Your task to perform on an android device: Go to notification settings Image 0: 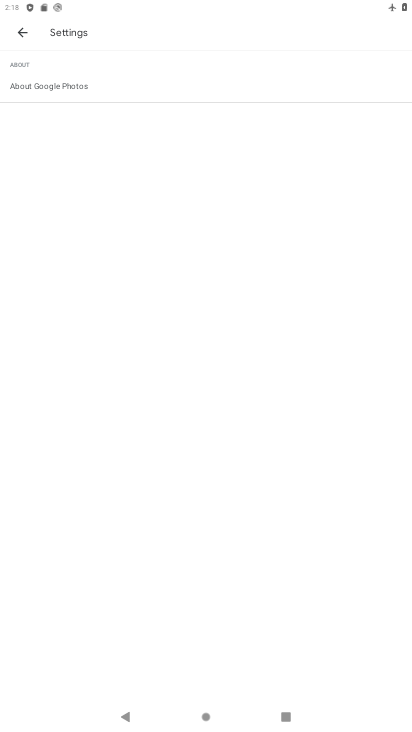
Step 0: press home button
Your task to perform on an android device: Go to notification settings Image 1: 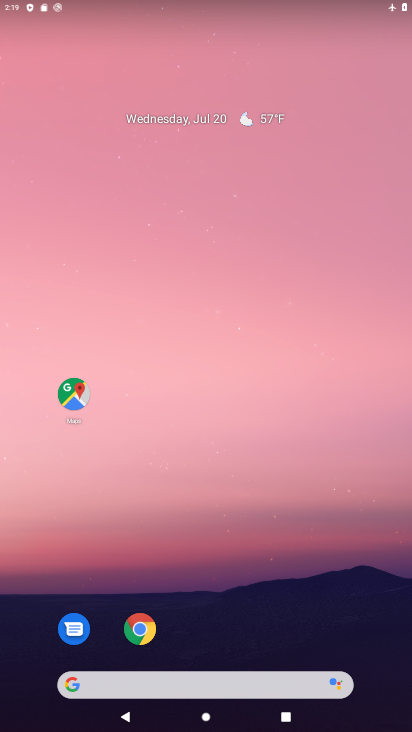
Step 1: drag from (204, 610) to (214, 151)
Your task to perform on an android device: Go to notification settings Image 2: 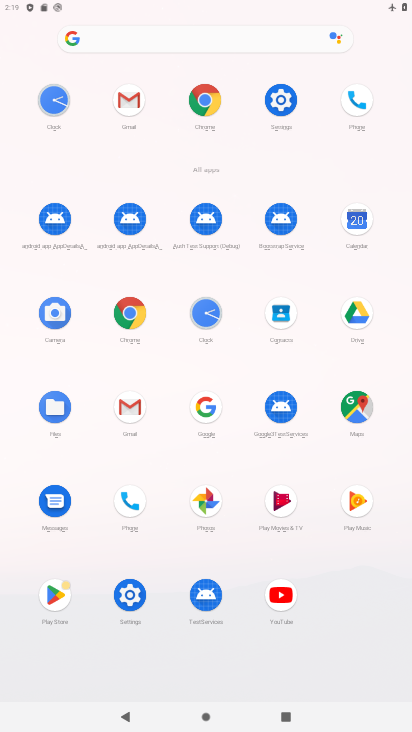
Step 2: click (289, 96)
Your task to perform on an android device: Go to notification settings Image 3: 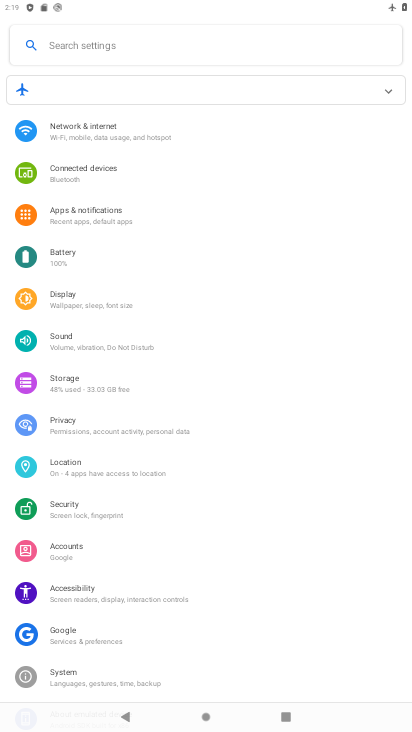
Step 3: click (139, 204)
Your task to perform on an android device: Go to notification settings Image 4: 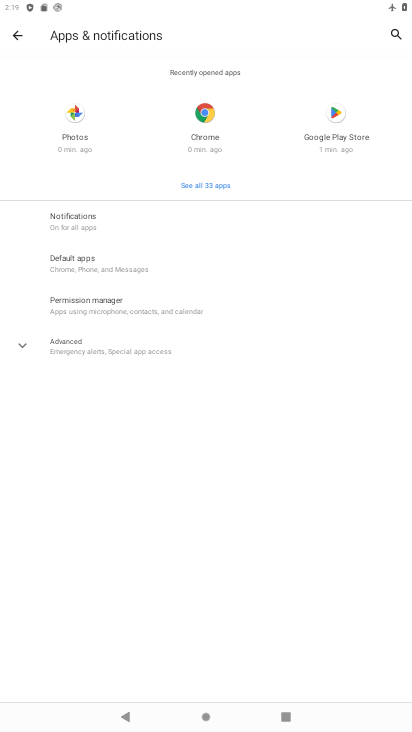
Step 4: task complete